Your task to perform on an android device: turn off sleep mode Image 0: 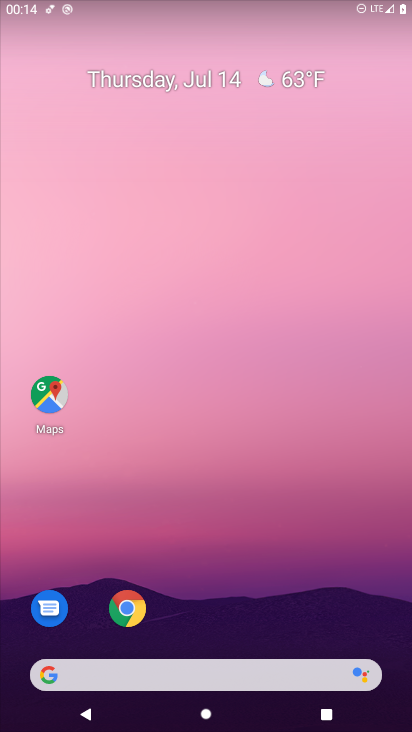
Step 0: press home button
Your task to perform on an android device: turn off sleep mode Image 1: 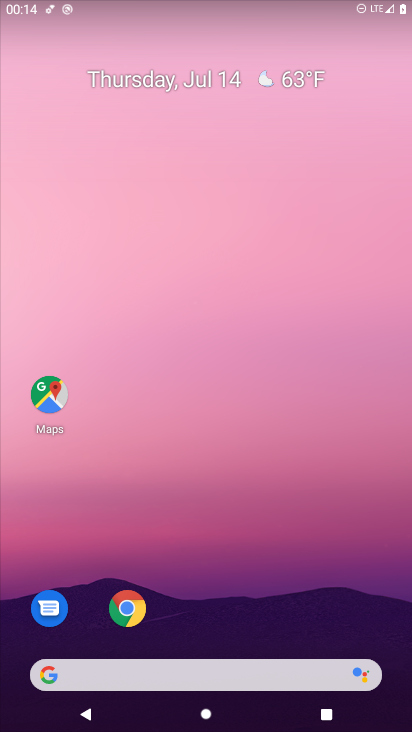
Step 1: drag from (234, 630) to (286, 44)
Your task to perform on an android device: turn off sleep mode Image 2: 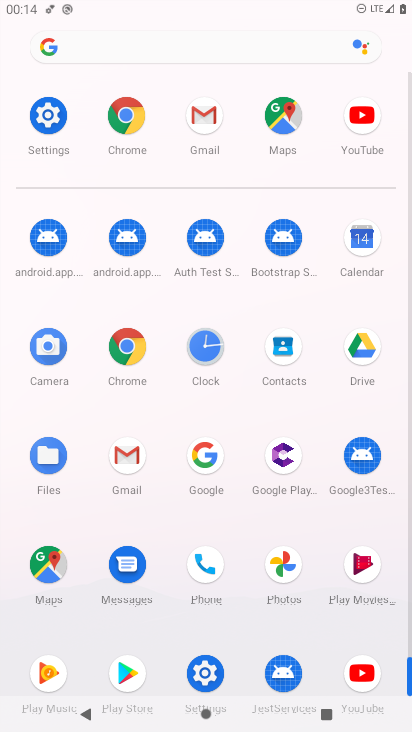
Step 2: click (40, 113)
Your task to perform on an android device: turn off sleep mode Image 3: 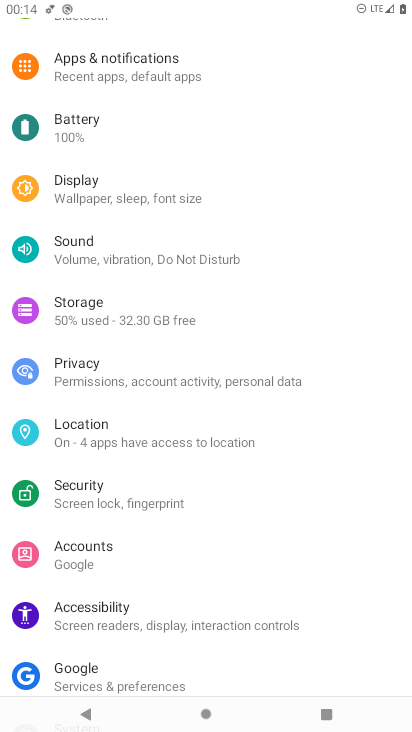
Step 3: click (85, 182)
Your task to perform on an android device: turn off sleep mode Image 4: 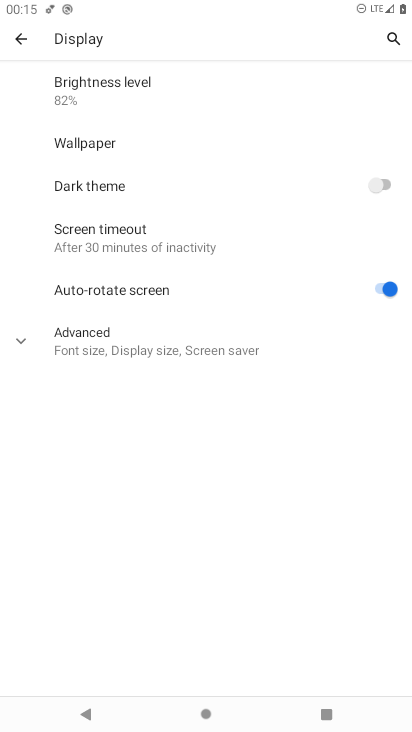
Step 4: task complete